Your task to perform on an android device: Open notification settings Image 0: 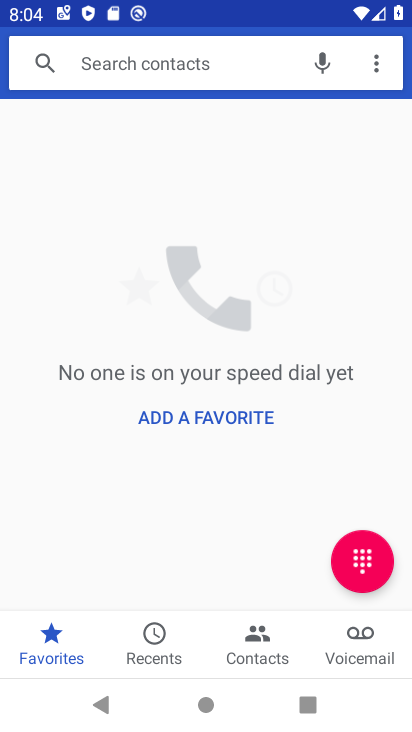
Step 0: press home button
Your task to perform on an android device: Open notification settings Image 1: 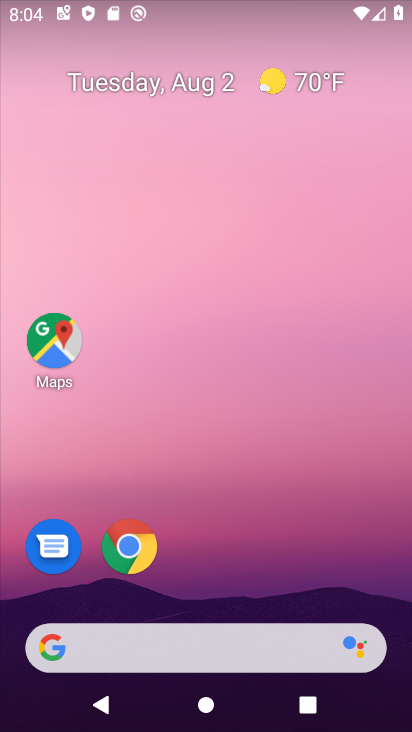
Step 1: drag from (233, 585) to (249, 236)
Your task to perform on an android device: Open notification settings Image 2: 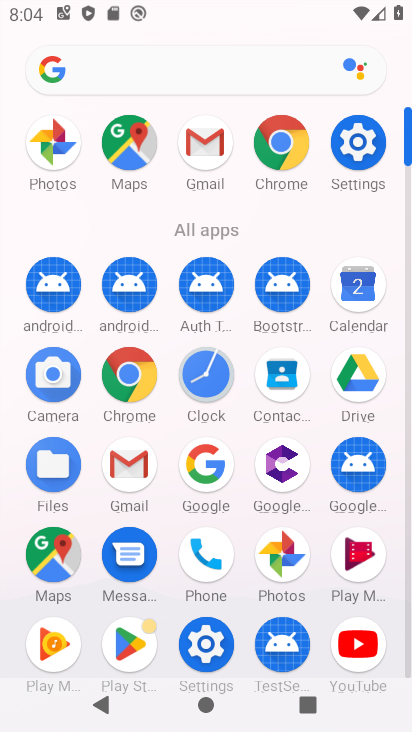
Step 2: click (201, 651)
Your task to perform on an android device: Open notification settings Image 3: 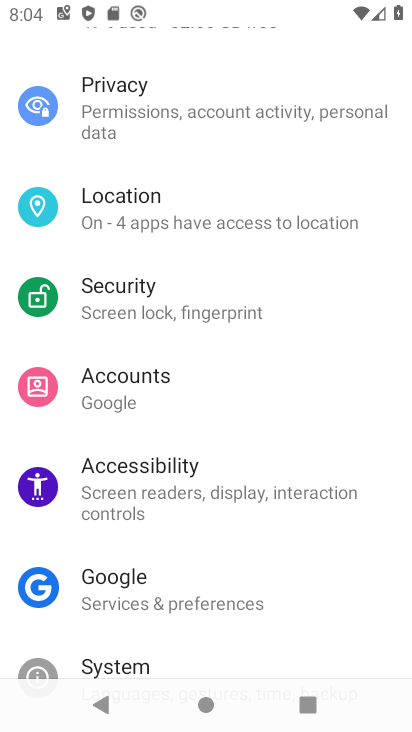
Step 3: drag from (222, 203) to (196, 655)
Your task to perform on an android device: Open notification settings Image 4: 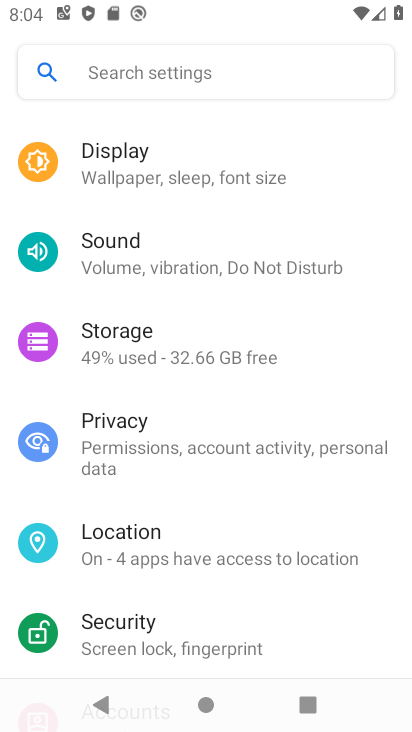
Step 4: drag from (216, 280) to (185, 678)
Your task to perform on an android device: Open notification settings Image 5: 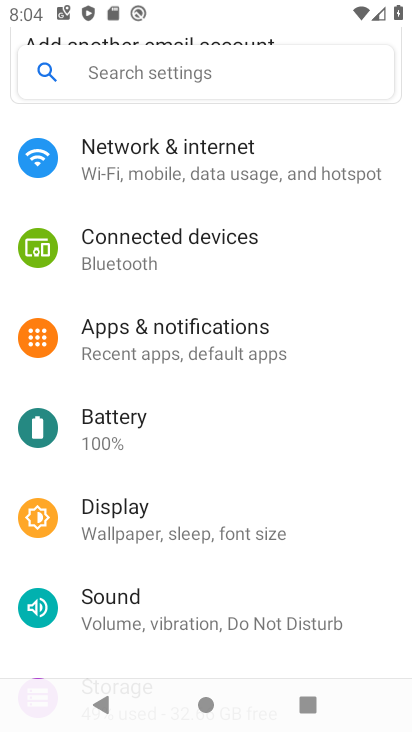
Step 5: click (198, 339)
Your task to perform on an android device: Open notification settings Image 6: 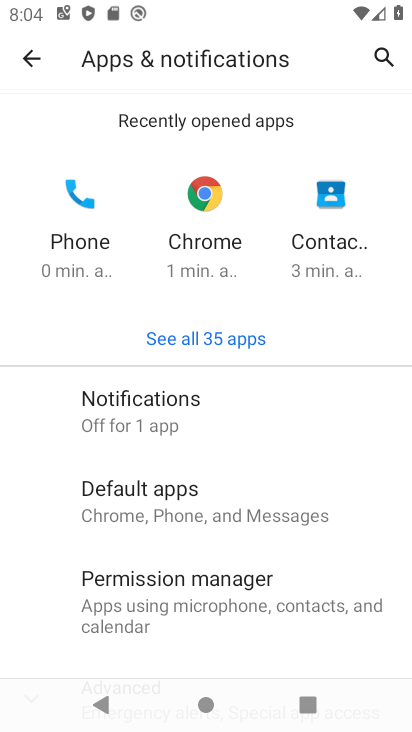
Step 6: click (137, 418)
Your task to perform on an android device: Open notification settings Image 7: 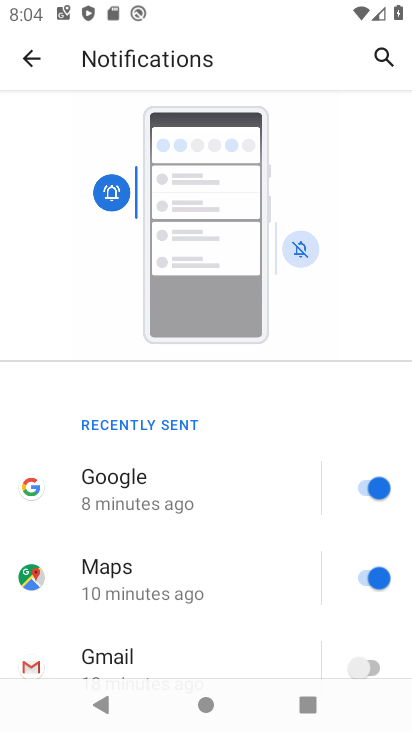
Step 7: task complete